Your task to perform on an android device: Open the map Image 0: 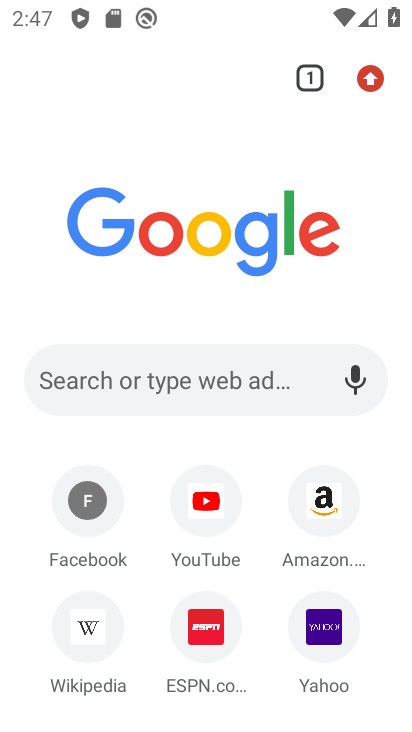
Step 0: press home button
Your task to perform on an android device: Open the map Image 1: 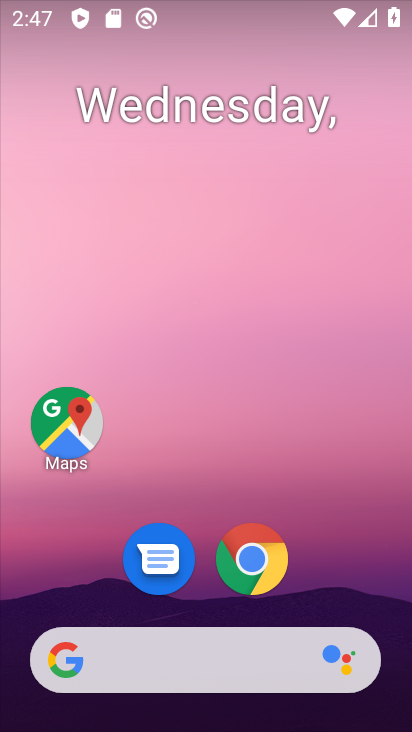
Step 1: drag from (385, 589) to (373, 181)
Your task to perform on an android device: Open the map Image 2: 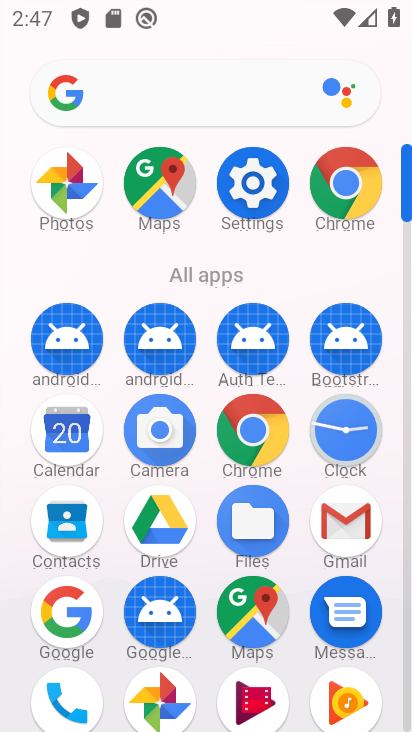
Step 2: drag from (312, 553) to (313, 342)
Your task to perform on an android device: Open the map Image 3: 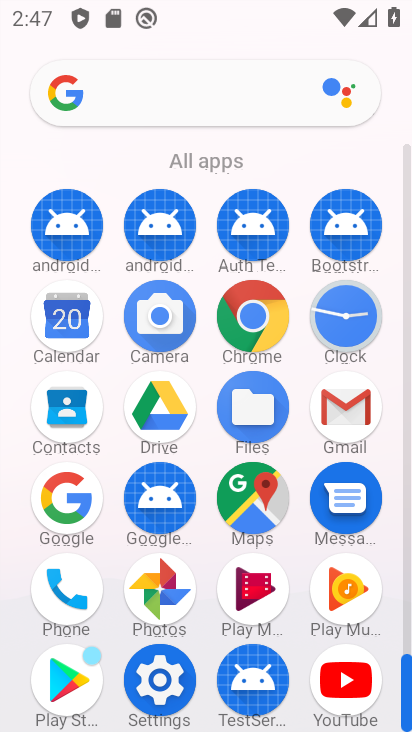
Step 3: click (237, 495)
Your task to perform on an android device: Open the map Image 4: 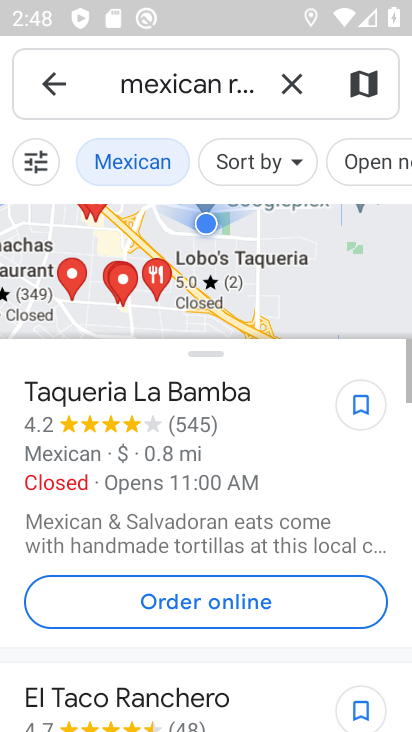
Step 4: task complete